Your task to perform on an android device: toggle show notifications on the lock screen Image 0: 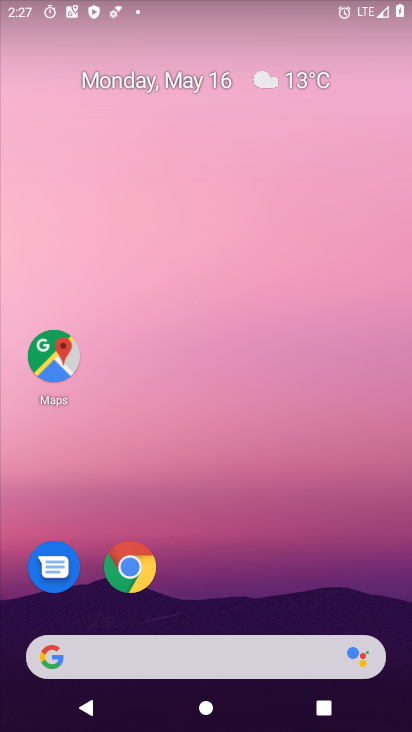
Step 0: drag from (266, 497) to (280, 131)
Your task to perform on an android device: toggle show notifications on the lock screen Image 1: 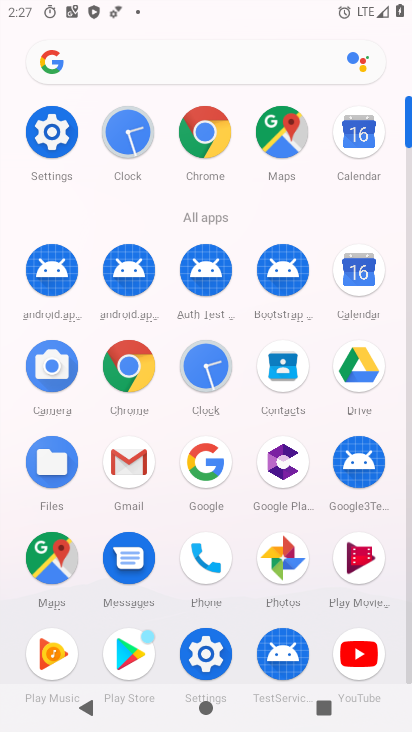
Step 1: click (205, 651)
Your task to perform on an android device: toggle show notifications on the lock screen Image 2: 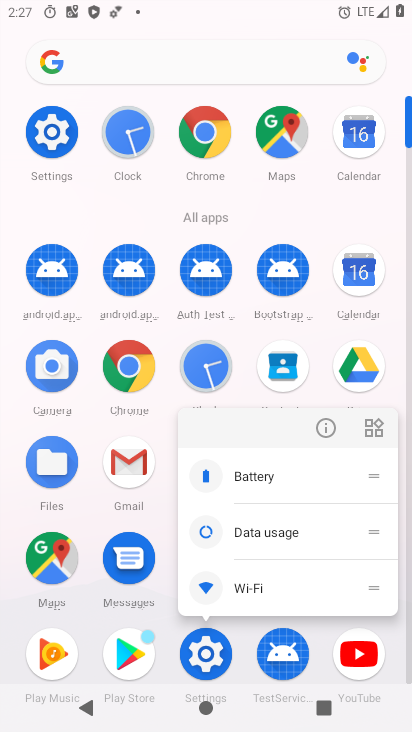
Step 2: click (205, 651)
Your task to perform on an android device: toggle show notifications on the lock screen Image 3: 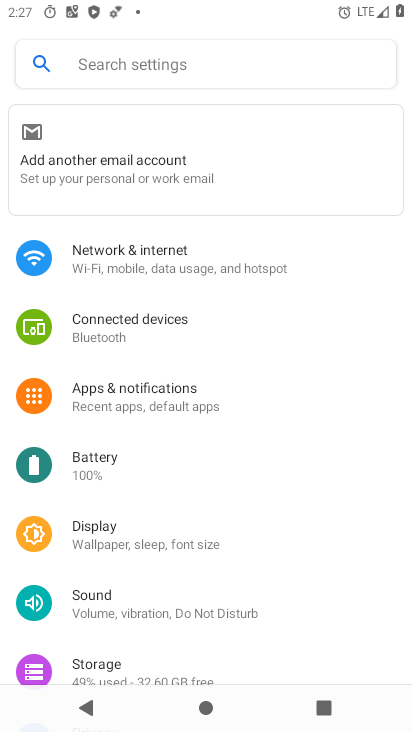
Step 3: click (183, 403)
Your task to perform on an android device: toggle show notifications on the lock screen Image 4: 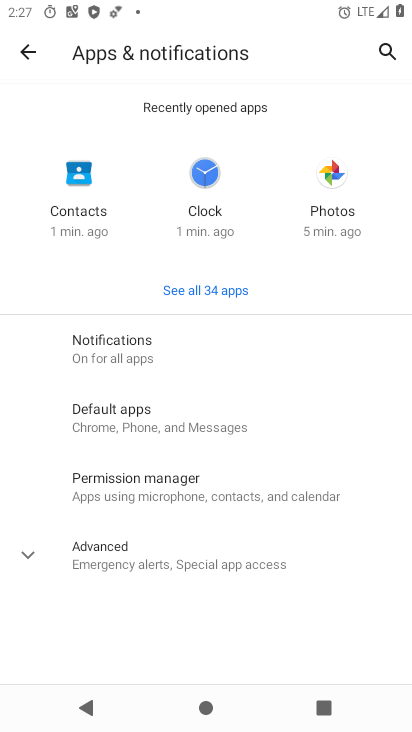
Step 4: click (124, 345)
Your task to perform on an android device: toggle show notifications on the lock screen Image 5: 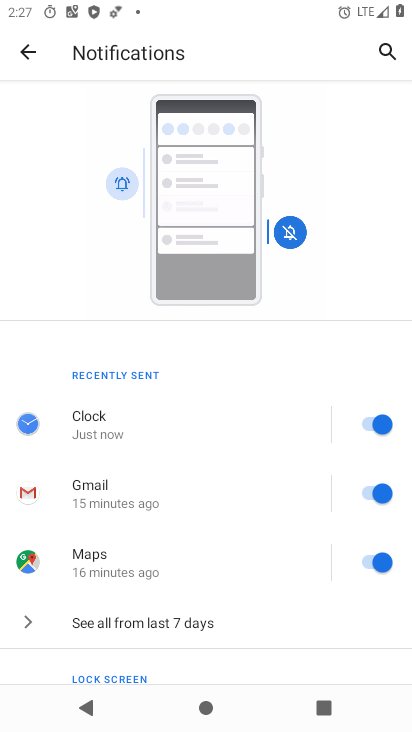
Step 5: drag from (186, 595) to (218, 280)
Your task to perform on an android device: toggle show notifications on the lock screen Image 6: 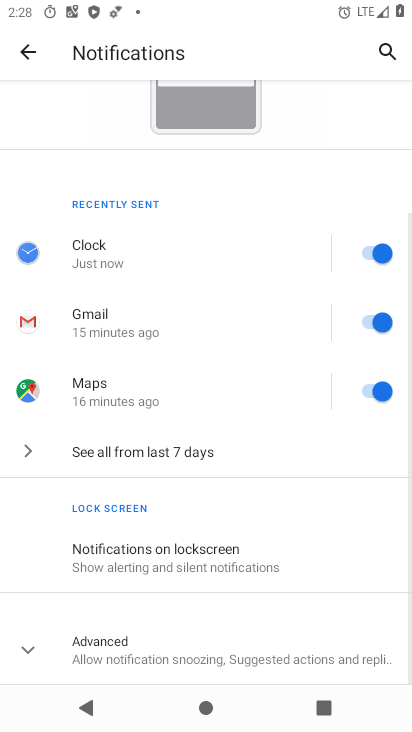
Step 6: drag from (191, 358) to (191, 284)
Your task to perform on an android device: toggle show notifications on the lock screen Image 7: 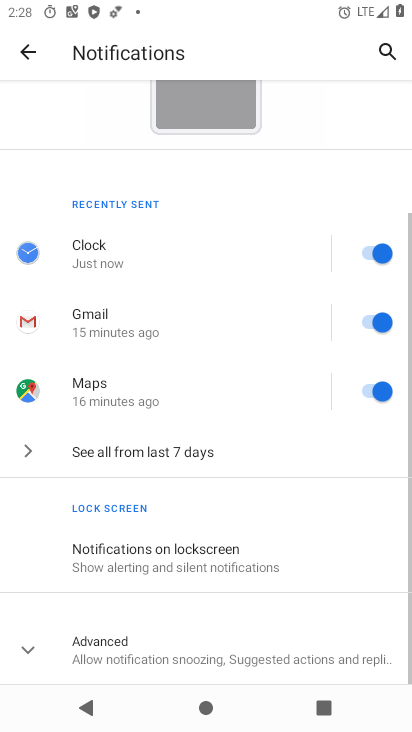
Step 7: click (141, 615)
Your task to perform on an android device: toggle show notifications on the lock screen Image 8: 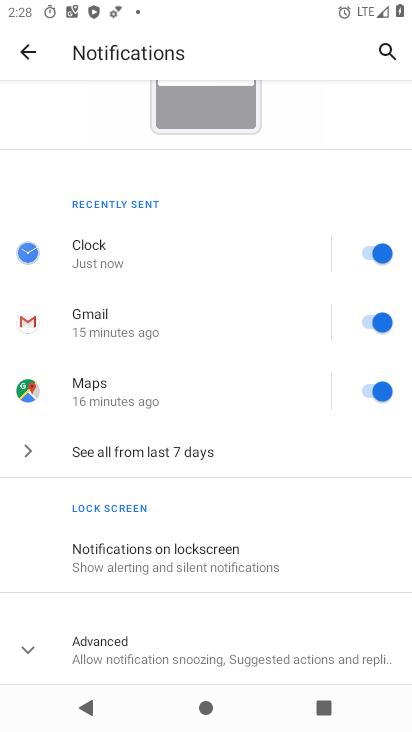
Step 8: drag from (141, 615) to (159, 421)
Your task to perform on an android device: toggle show notifications on the lock screen Image 9: 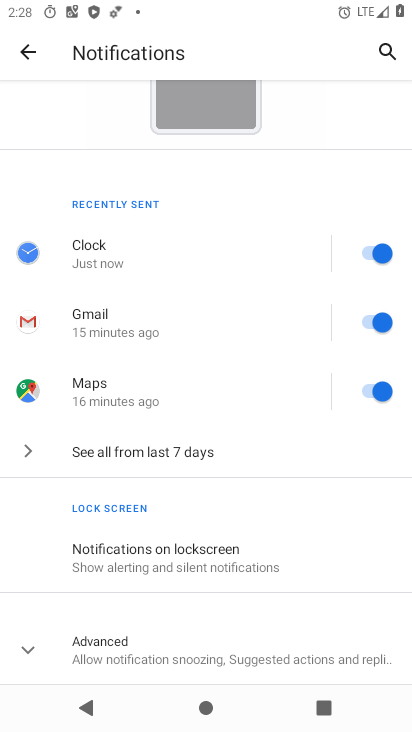
Step 9: click (121, 550)
Your task to perform on an android device: toggle show notifications on the lock screen Image 10: 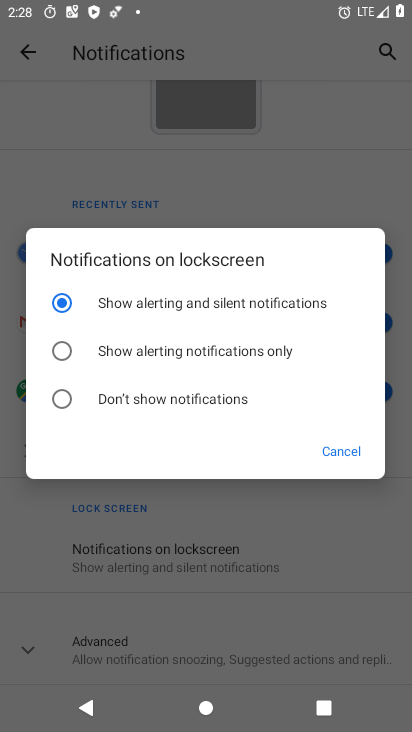
Step 10: click (105, 399)
Your task to perform on an android device: toggle show notifications on the lock screen Image 11: 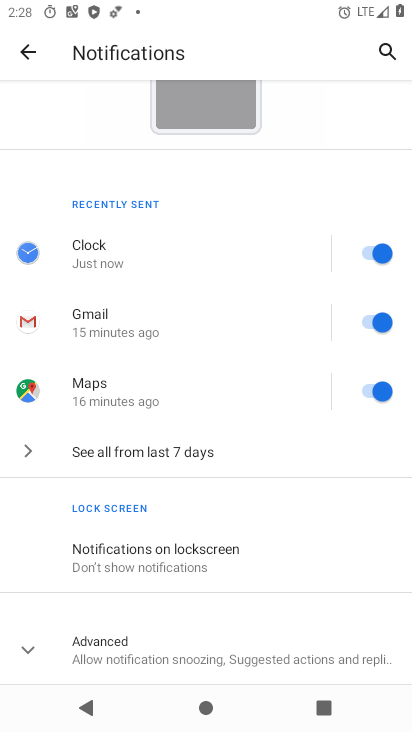
Step 11: task complete